Your task to perform on an android device: Go to eBay Image 0: 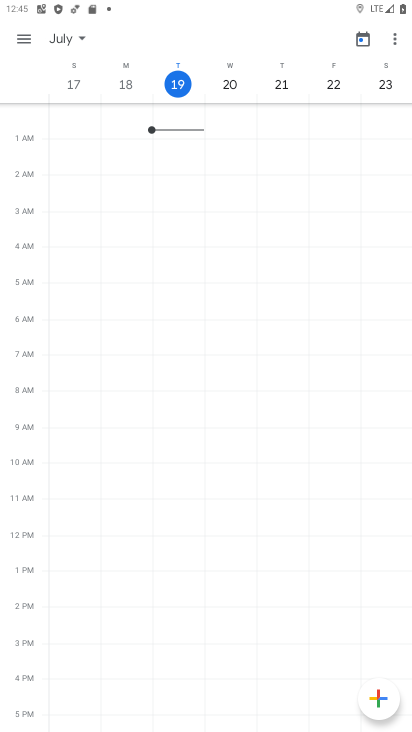
Step 0: press home button
Your task to perform on an android device: Go to eBay Image 1: 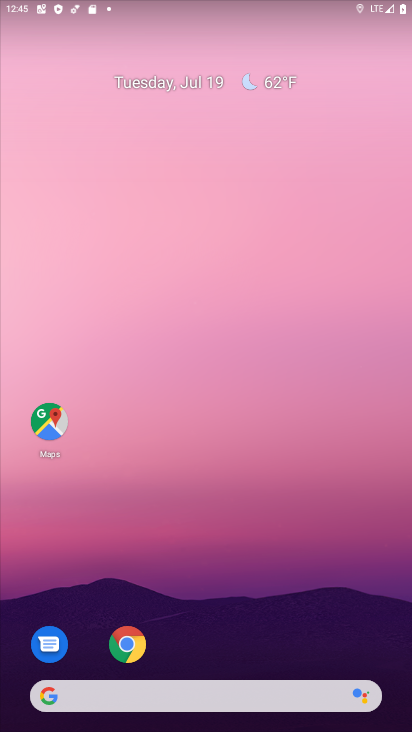
Step 1: click (123, 653)
Your task to perform on an android device: Go to eBay Image 2: 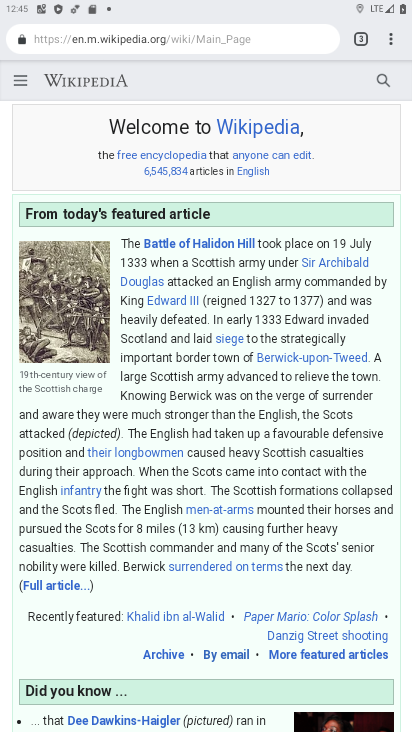
Step 2: click (393, 38)
Your task to perform on an android device: Go to eBay Image 3: 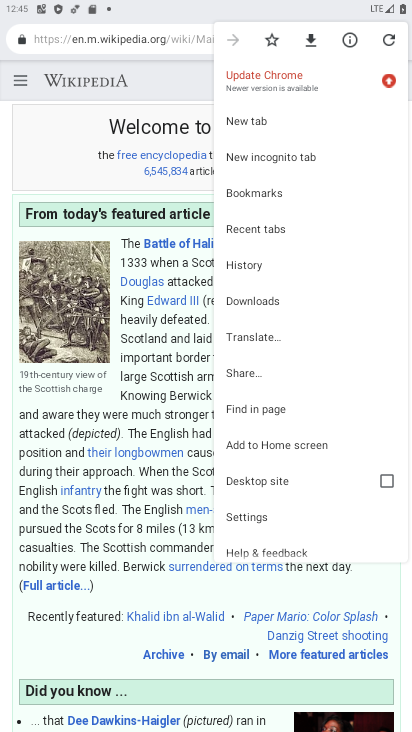
Step 3: click (234, 120)
Your task to perform on an android device: Go to eBay Image 4: 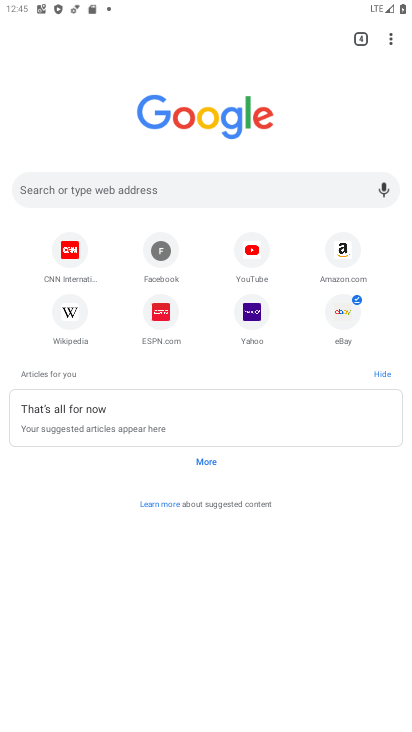
Step 4: click (338, 303)
Your task to perform on an android device: Go to eBay Image 5: 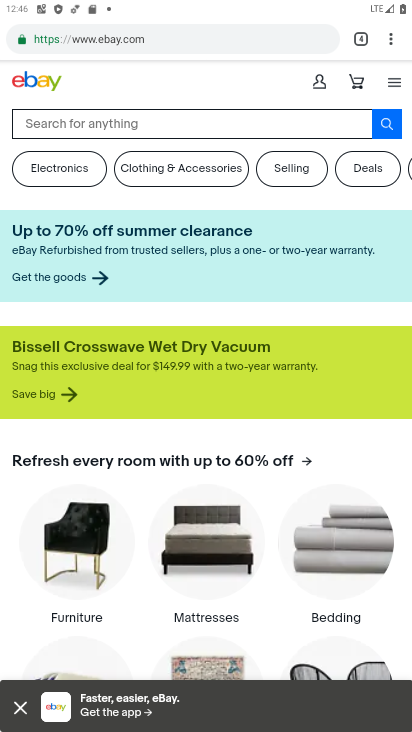
Step 5: task complete